Your task to perform on an android device: empty trash in the gmail app Image 0: 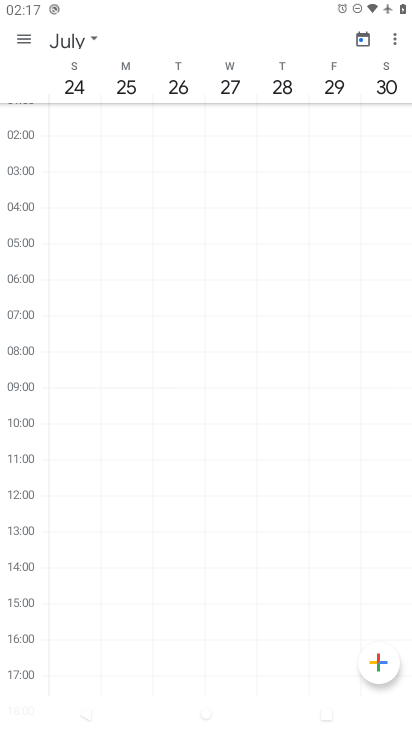
Step 0: press home button
Your task to perform on an android device: empty trash in the gmail app Image 1: 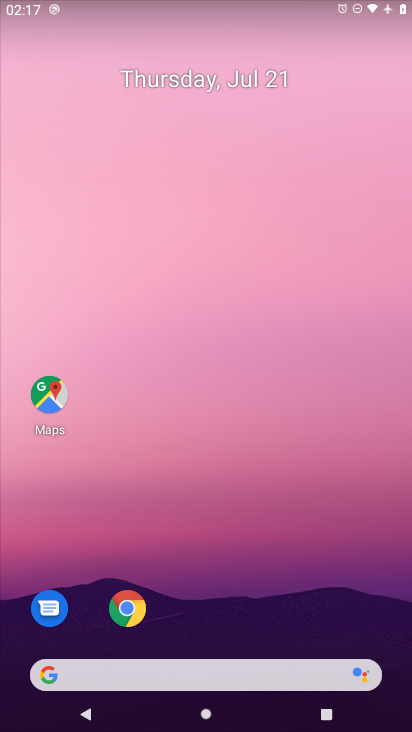
Step 1: drag from (242, 643) to (241, 155)
Your task to perform on an android device: empty trash in the gmail app Image 2: 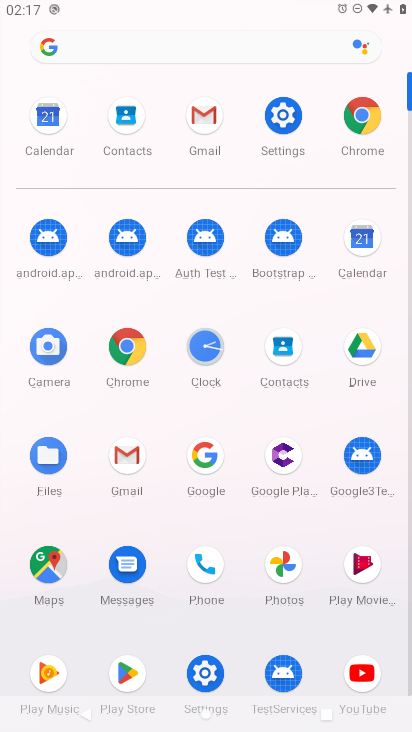
Step 2: click (199, 122)
Your task to perform on an android device: empty trash in the gmail app Image 3: 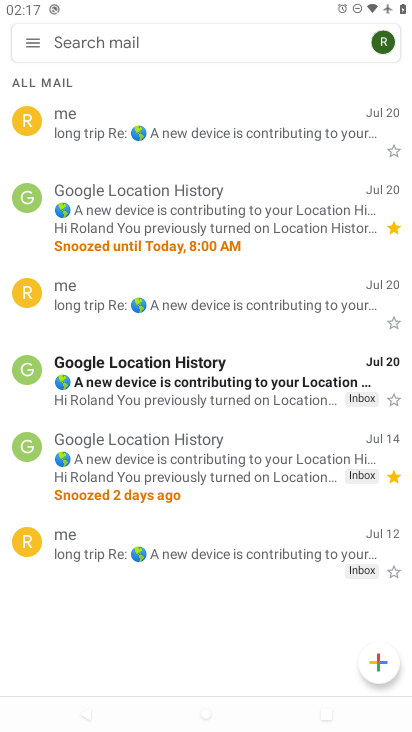
Step 3: click (31, 48)
Your task to perform on an android device: empty trash in the gmail app Image 4: 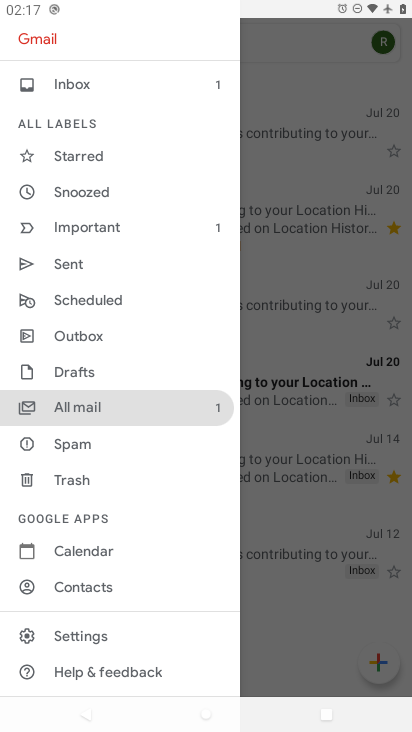
Step 4: click (78, 477)
Your task to perform on an android device: empty trash in the gmail app Image 5: 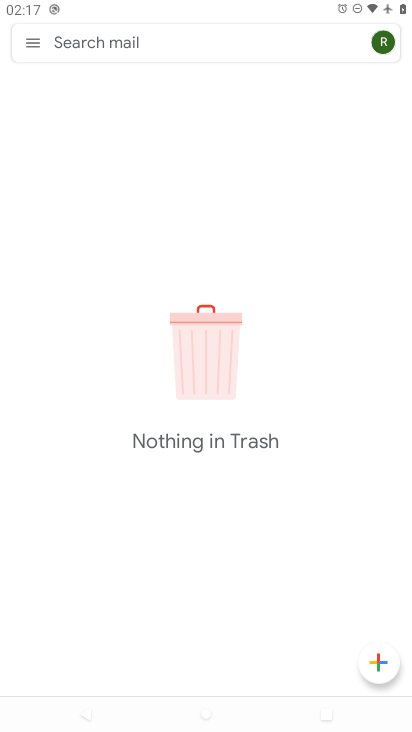
Step 5: task complete